Your task to perform on an android device: Find coffee shops on Maps Image 0: 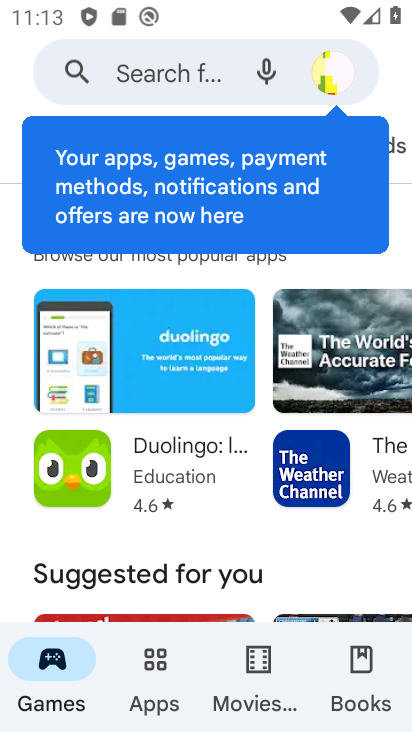
Step 0: press home button
Your task to perform on an android device: Find coffee shops on Maps Image 1: 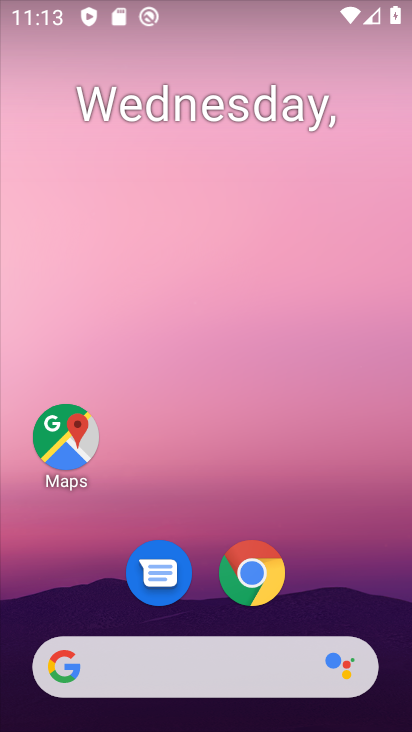
Step 1: click (68, 438)
Your task to perform on an android device: Find coffee shops on Maps Image 2: 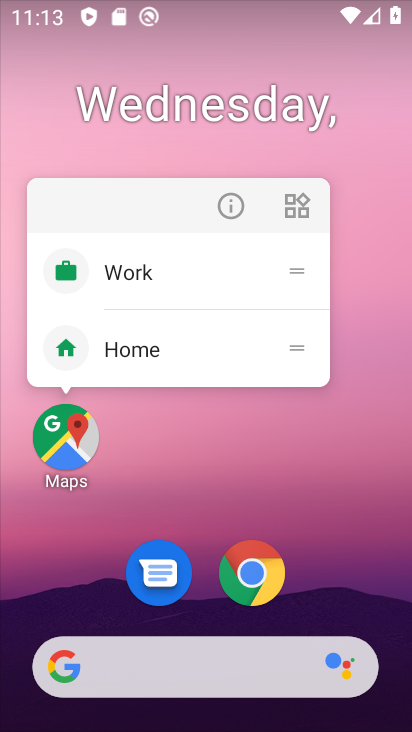
Step 2: click (67, 438)
Your task to perform on an android device: Find coffee shops on Maps Image 3: 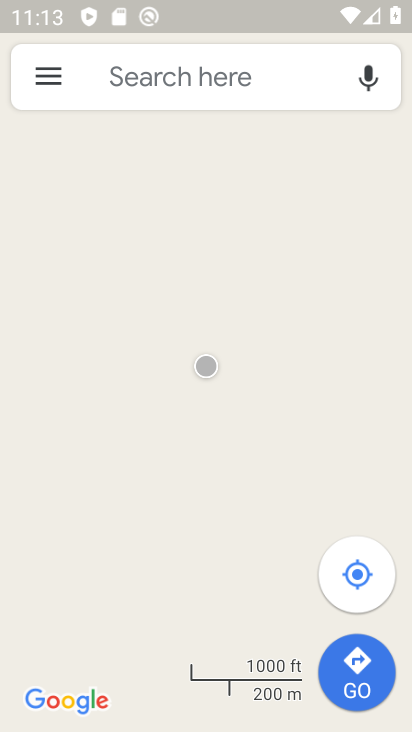
Step 3: click (132, 77)
Your task to perform on an android device: Find coffee shops on Maps Image 4: 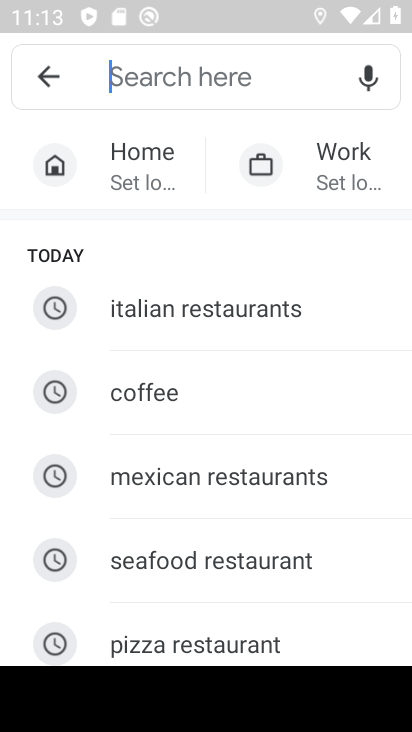
Step 4: click (107, 393)
Your task to perform on an android device: Find coffee shops on Maps Image 5: 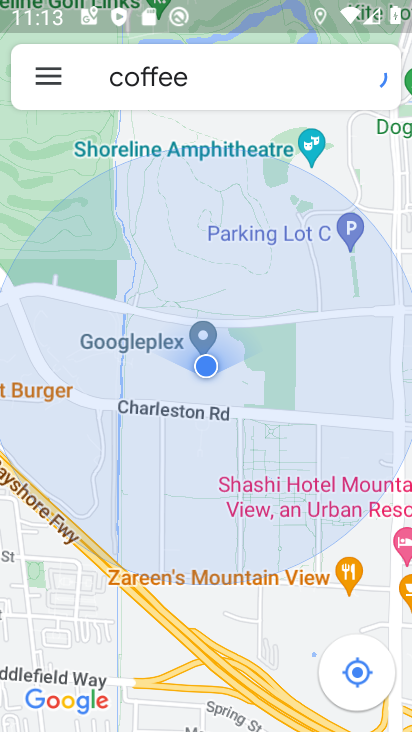
Step 5: task complete